Your task to perform on an android device: Open Google Chrome and open the bookmarks view Image 0: 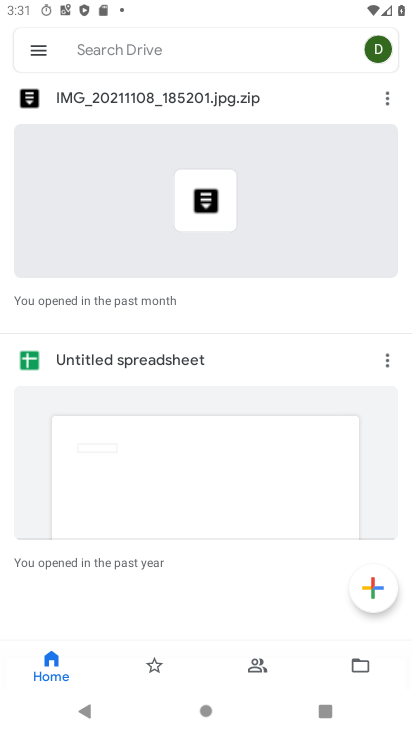
Step 0: press home button
Your task to perform on an android device: Open Google Chrome and open the bookmarks view Image 1: 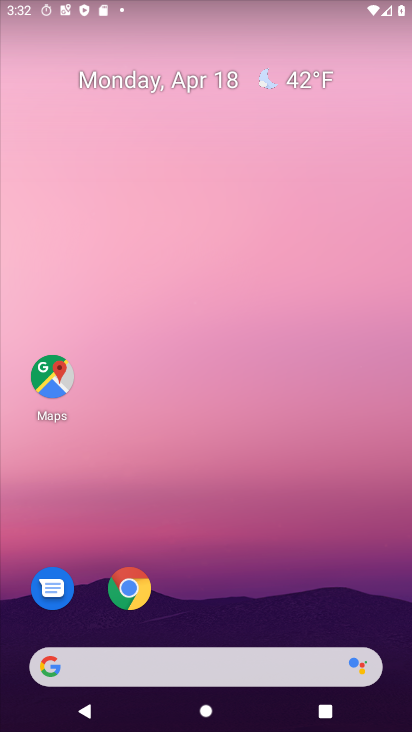
Step 1: click (135, 596)
Your task to perform on an android device: Open Google Chrome and open the bookmarks view Image 2: 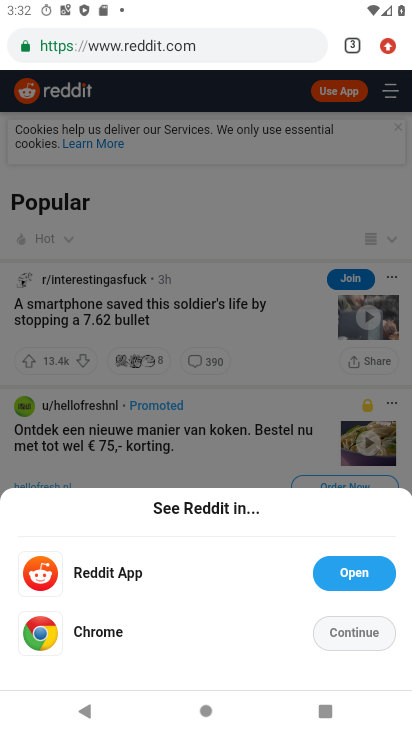
Step 2: click (393, 48)
Your task to perform on an android device: Open Google Chrome and open the bookmarks view Image 3: 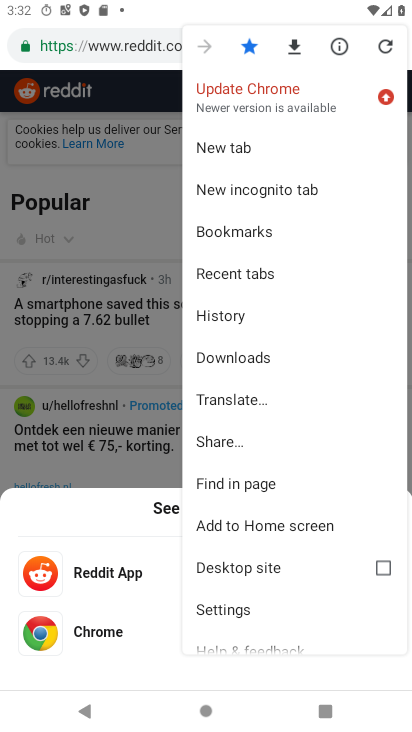
Step 3: click (201, 239)
Your task to perform on an android device: Open Google Chrome and open the bookmarks view Image 4: 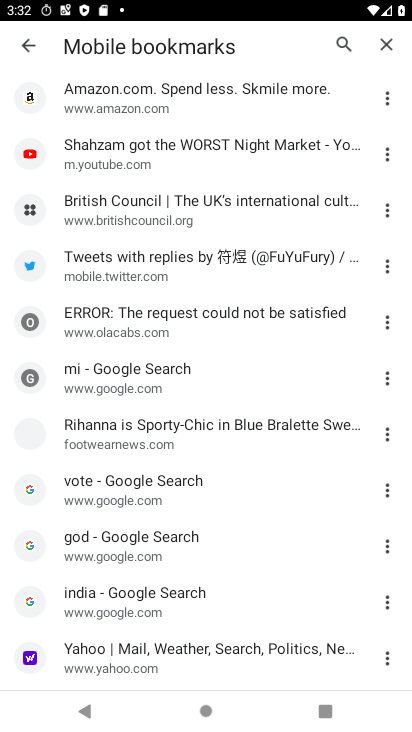
Step 4: task complete